Your task to perform on an android device: turn notification dots on Image 0: 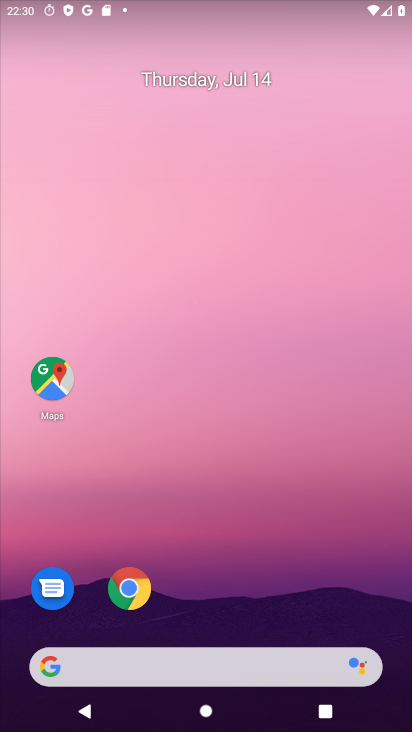
Step 0: drag from (272, 612) to (335, 38)
Your task to perform on an android device: turn notification dots on Image 1: 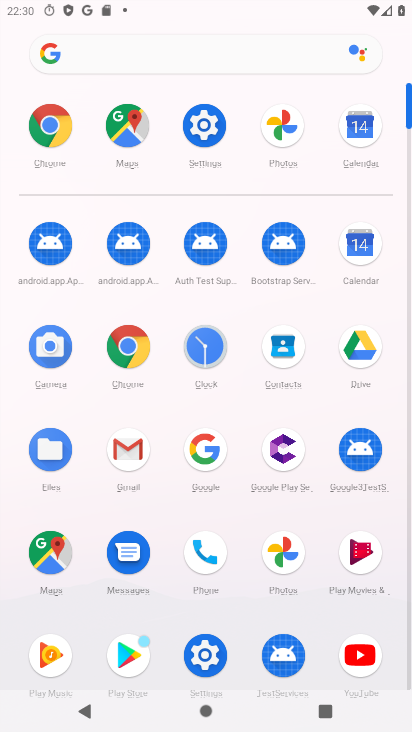
Step 1: click (212, 127)
Your task to perform on an android device: turn notification dots on Image 2: 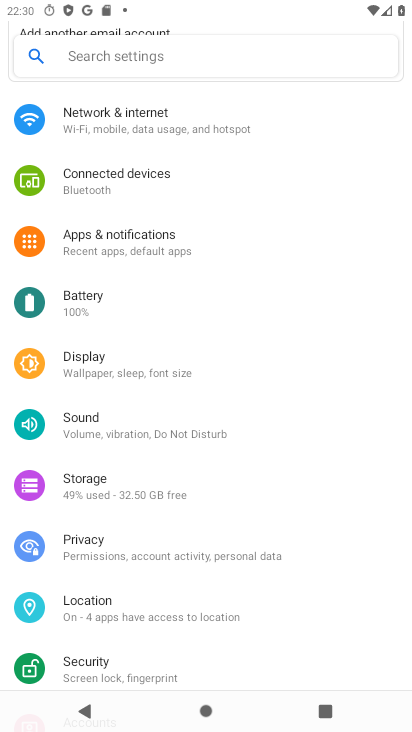
Step 2: click (134, 245)
Your task to perform on an android device: turn notification dots on Image 3: 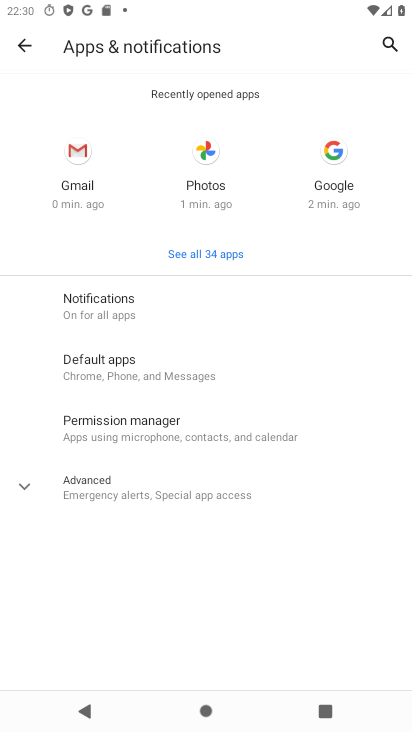
Step 3: click (72, 488)
Your task to perform on an android device: turn notification dots on Image 4: 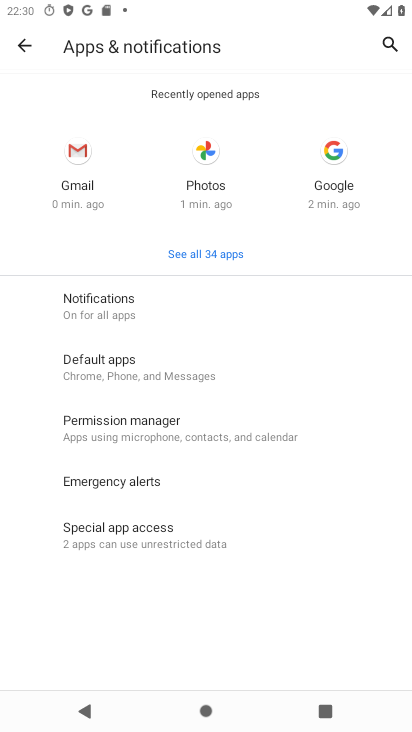
Step 4: click (158, 289)
Your task to perform on an android device: turn notification dots on Image 5: 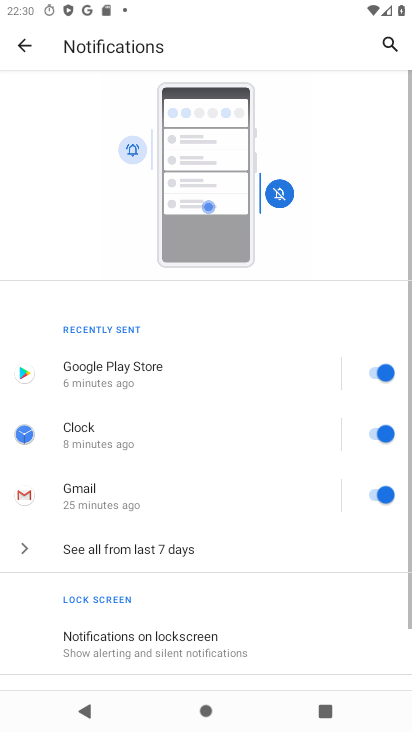
Step 5: drag from (161, 655) to (192, 309)
Your task to perform on an android device: turn notification dots on Image 6: 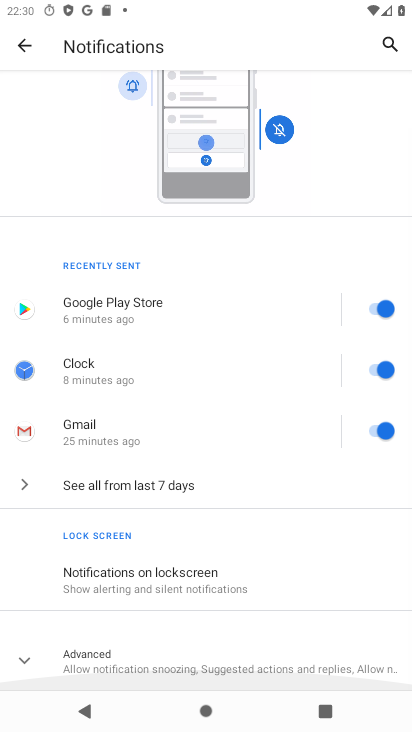
Step 6: click (116, 669)
Your task to perform on an android device: turn notification dots on Image 7: 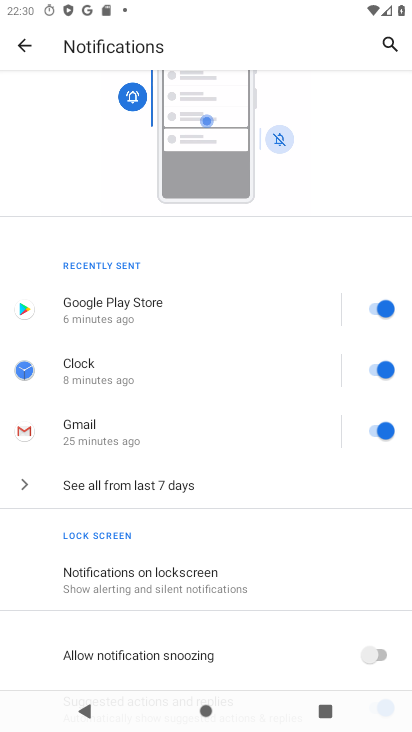
Step 7: task complete